Your task to perform on an android device: add a contact Image 0: 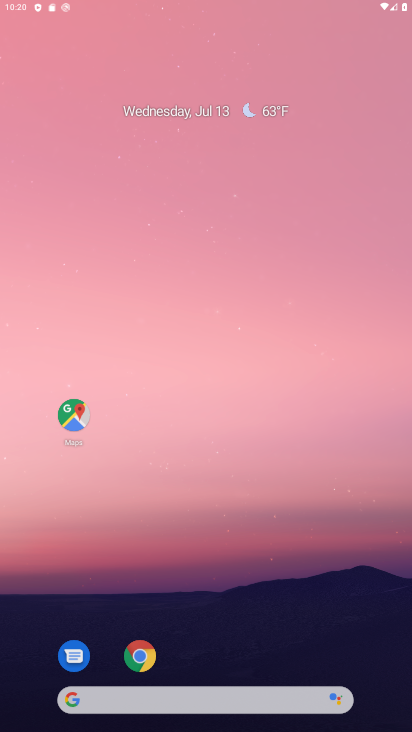
Step 0: press home button
Your task to perform on an android device: add a contact Image 1: 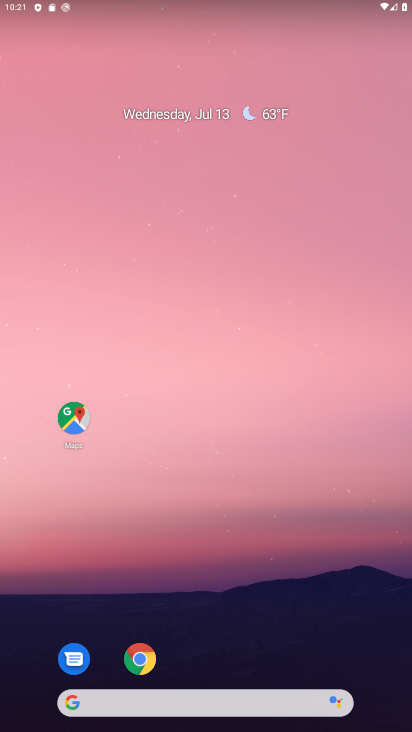
Step 1: drag from (267, 642) to (286, 145)
Your task to perform on an android device: add a contact Image 2: 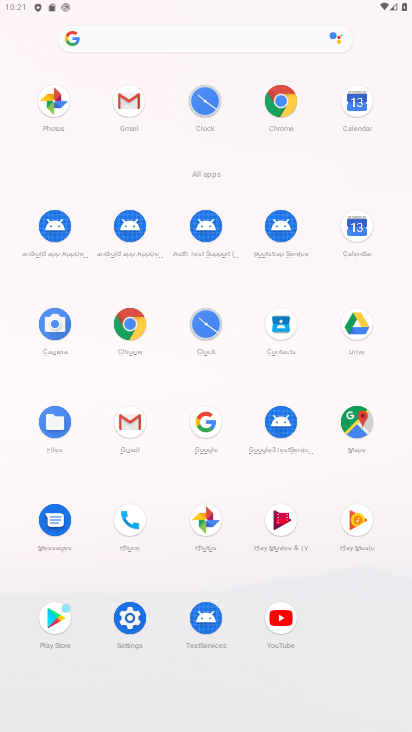
Step 2: click (274, 313)
Your task to perform on an android device: add a contact Image 3: 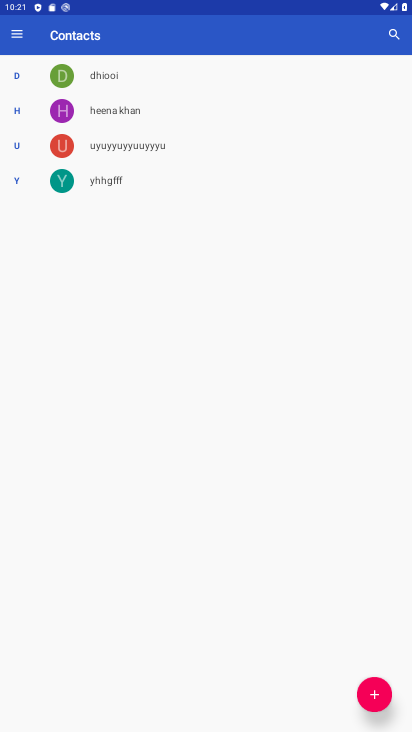
Step 3: click (370, 684)
Your task to perform on an android device: add a contact Image 4: 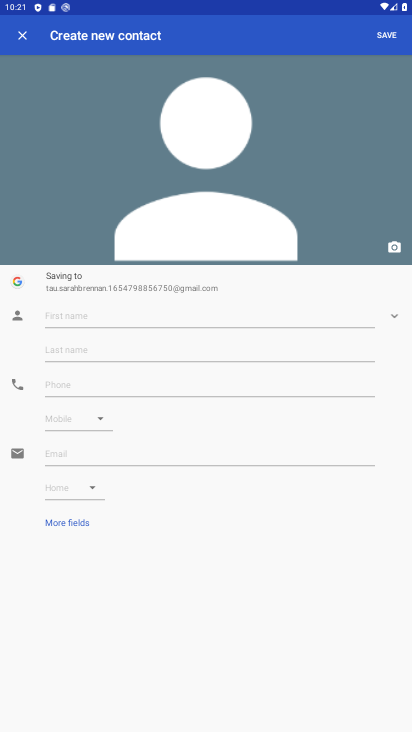
Step 4: click (243, 325)
Your task to perform on an android device: add a contact Image 5: 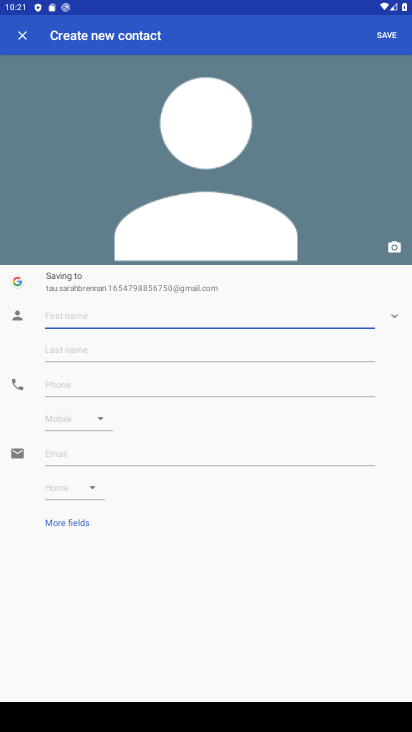
Step 5: type "mahadev"
Your task to perform on an android device: add a contact Image 6: 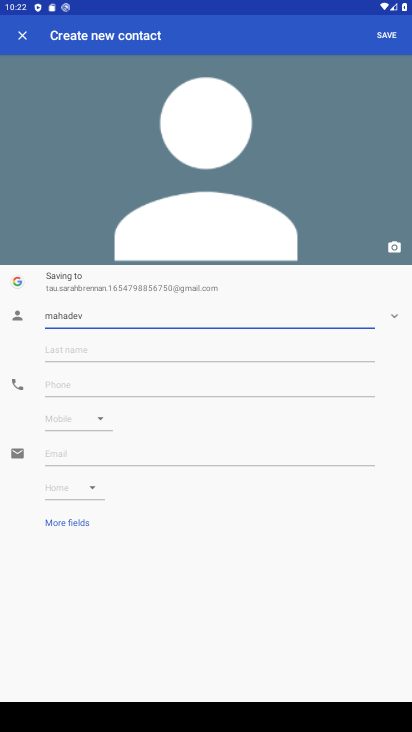
Step 6: click (391, 37)
Your task to perform on an android device: add a contact Image 7: 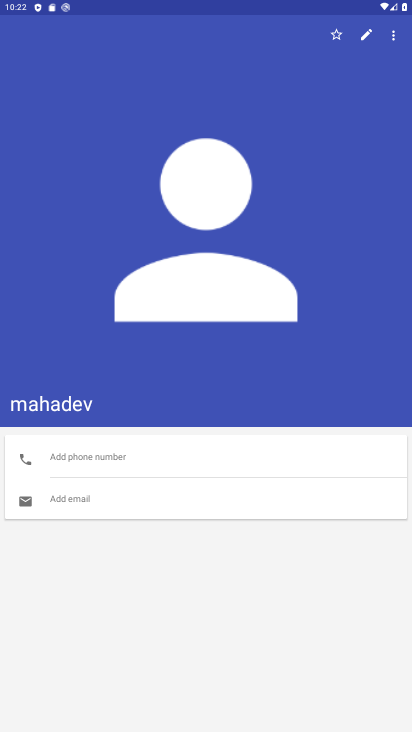
Step 7: task complete